Your task to perform on an android device: See recent photos Image 0: 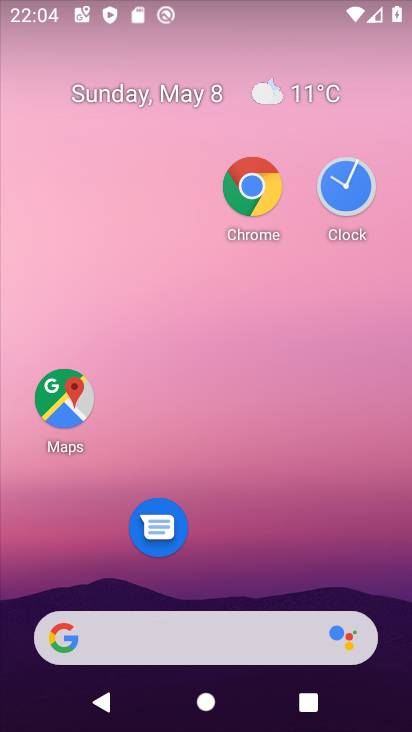
Step 0: drag from (283, 614) to (369, 139)
Your task to perform on an android device: See recent photos Image 1: 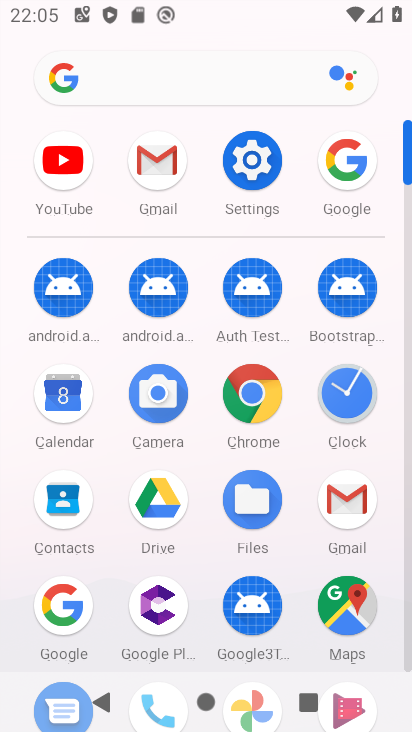
Step 1: drag from (212, 671) to (209, 362)
Your task to perform on an android device: See recent photos Image 2: 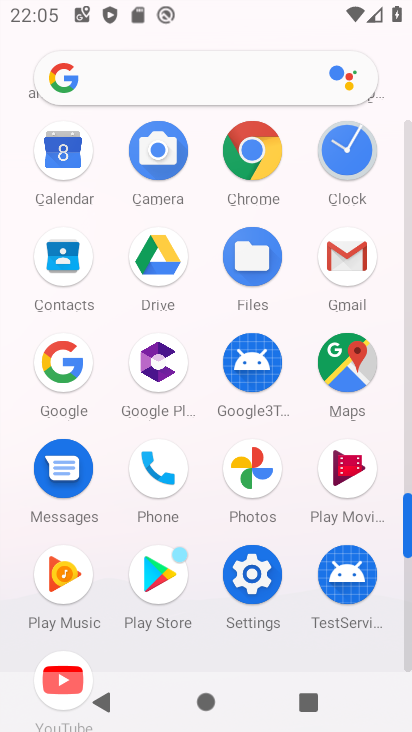
Step 2: click (235, 465)
Your task to perform on an android device: See recent photos Image 3: 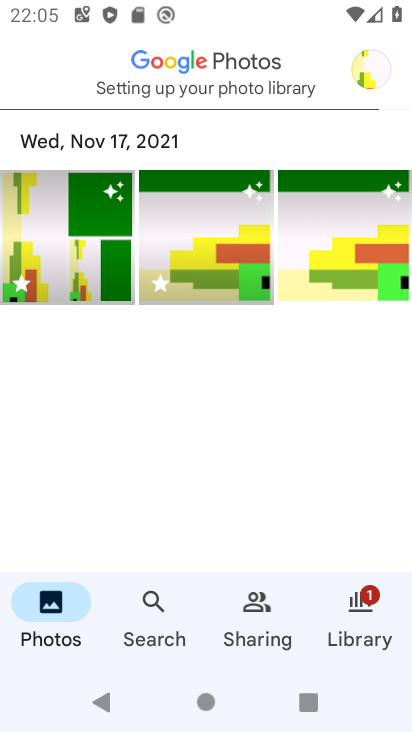
Step 3: click (142, 607)
Your task to perform on an android device: See recent photos Image 4: 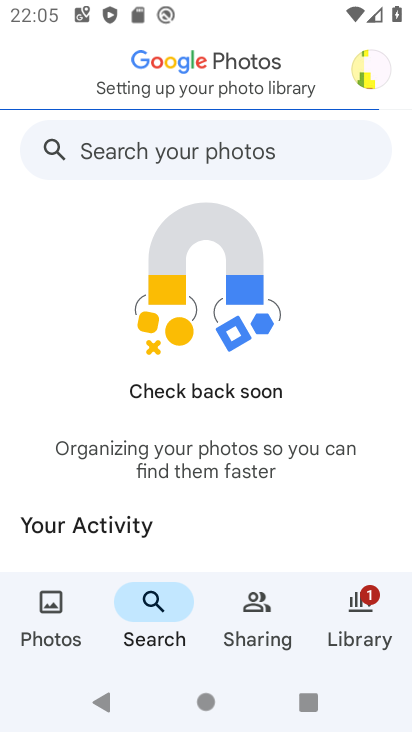
Step 4: drag from (128, 513) to (102, 221)
Your task to perform on an android device: See recent photos Image 5: 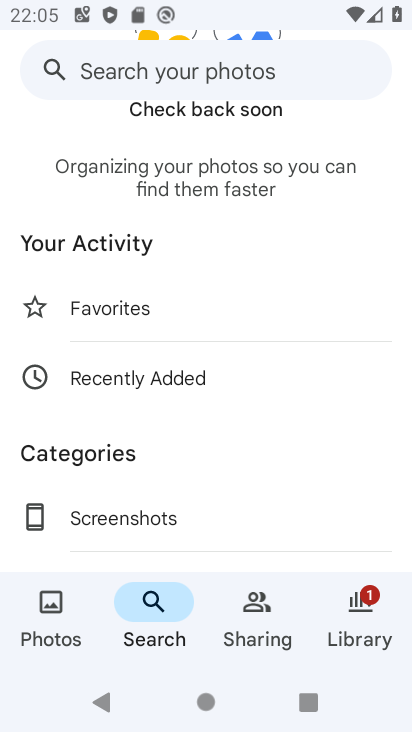
Step 5: click (128, 374)
Your task to perform on an android device: See recent photos Image 6: 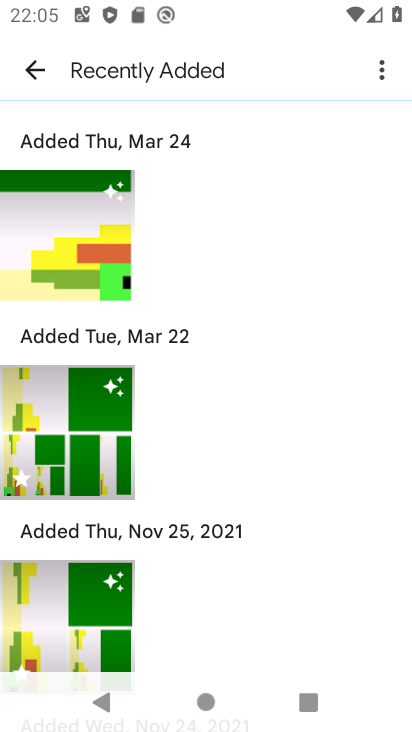
Step 6: task complete